Your task to perform on an android device: turn on airplane mode Image 0: 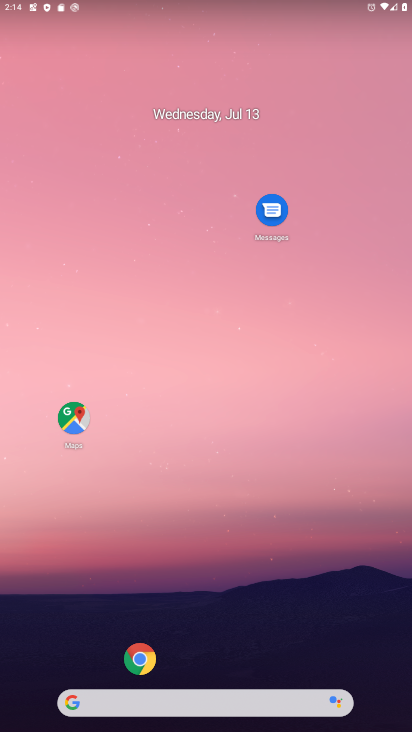
Step 0: drag from (229, 314) to (409, 141)
Your task to perform on an android device: turn on airplane mode Image 1: 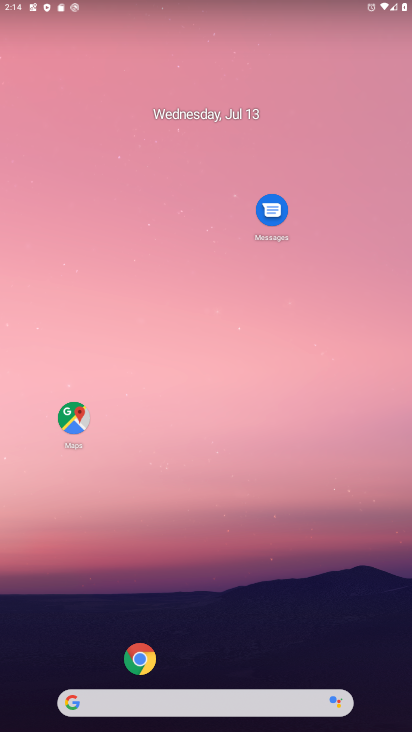
Step 1: drag from (53, 651) to (264, 113)
Your task to perform on an android device: turn on airplane mode Image 2: 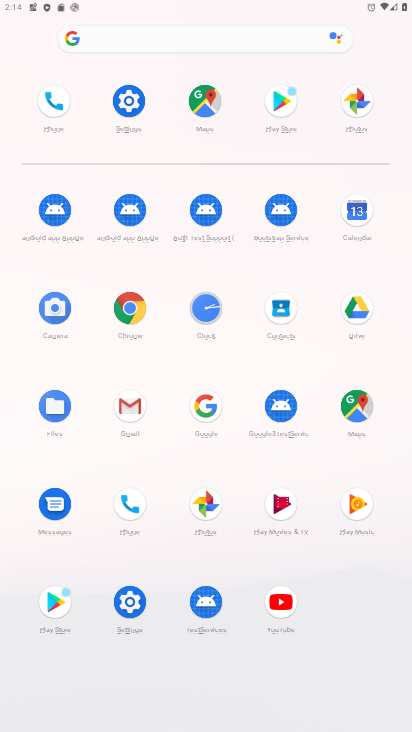
Step 2: click (128, 608)
Your task to perform on an android device: turn on airplane mode Image 3: 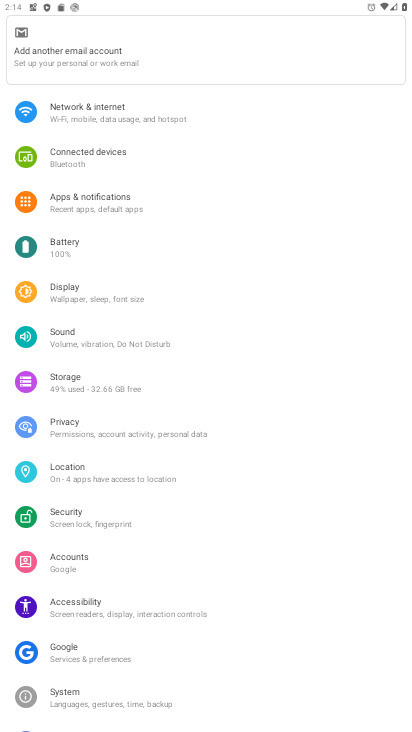
Step 3: click (143, 118)
Your task to perform on an android device: turn on airplane mode Image 4: 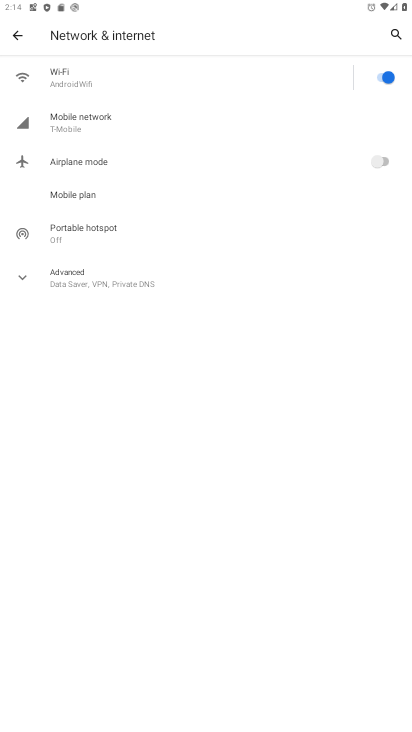
Step 4: click (382, 156)
Your task to perform on an android device: turn on airplane mode Image 5: 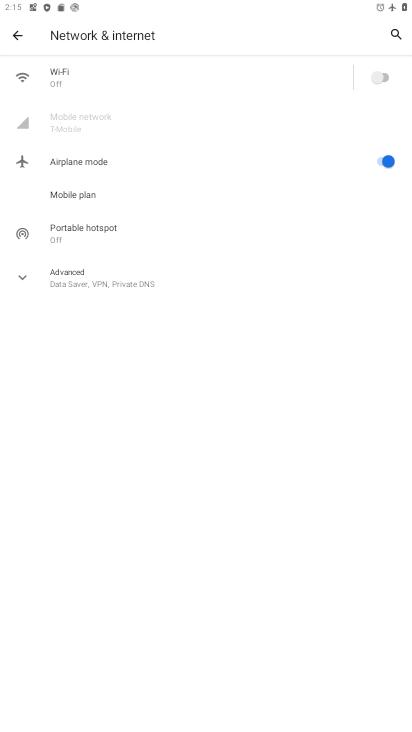
Step 5: task complete